Your task to perform on an android device: Search for the best books of all time on Goodreads Image 0: 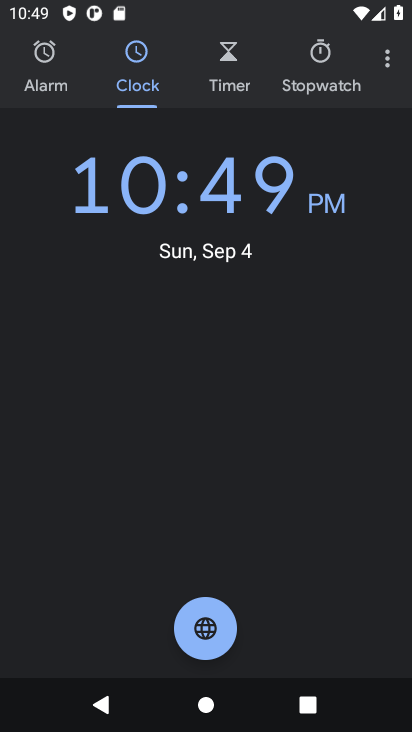
Step 0: press home button
Your task to perform on an android device: Search for the best books of all time on Goodreads Image 1: 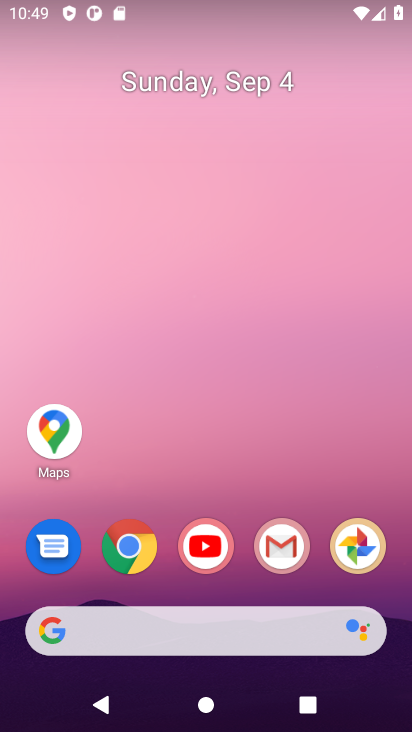
Step 1: click (125, 559)
Your task to perform on an android device: Search for the best books of all time on Goodreads Image 2: 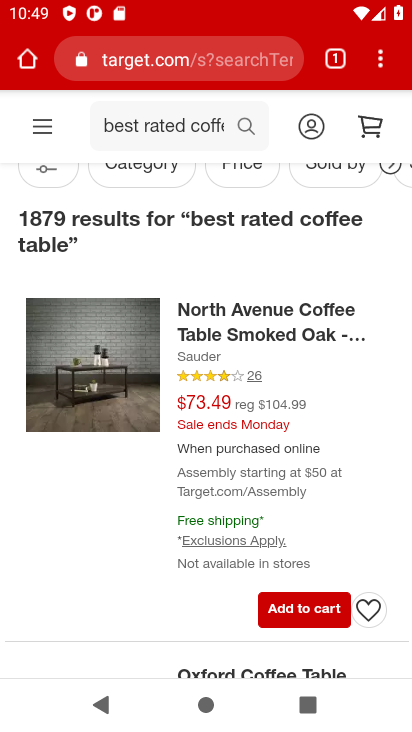
Step 2: click (179, 65)
Your task to perform on an android device: Search for the best books of all time on Goodreads Image 3: 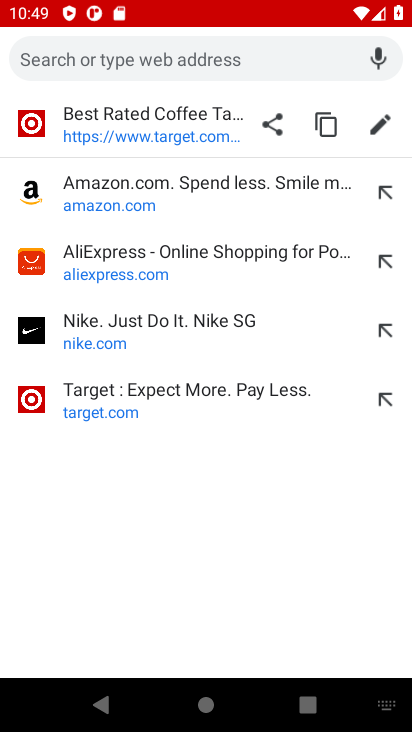
Step 3: type "goodreads"
Your task to perform on an android device: Search for the best books of all time on Goodreads Image 4: 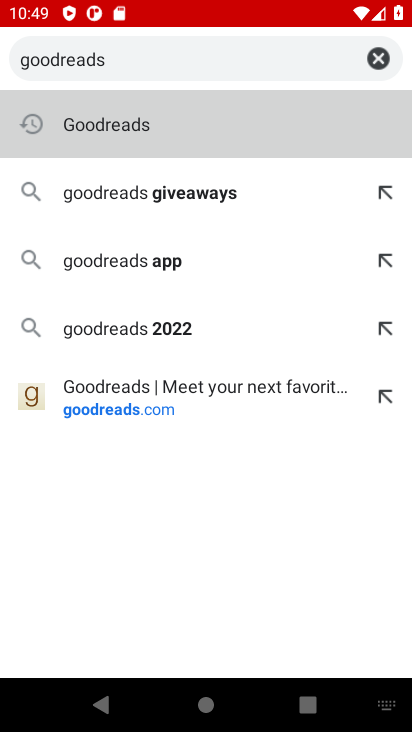
Step 4: click (93, 128)
Your task to perform on an android device: Search for the best books of all time on Goodreads Image 5: 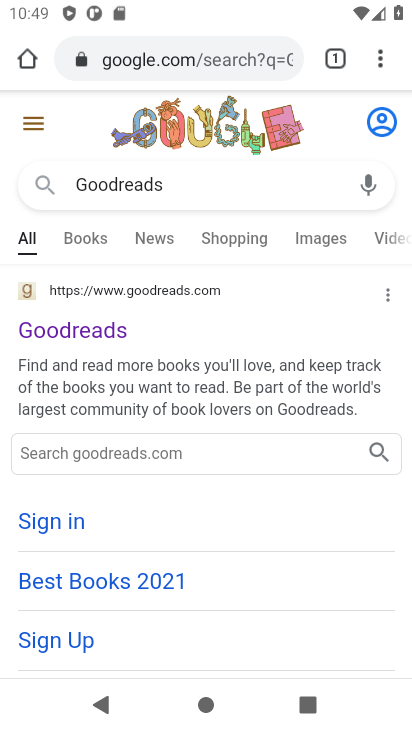
Step 5: click (85, 344)
Your task to perform on an android device: Search for the best books of all time on Goodreads Image 6: 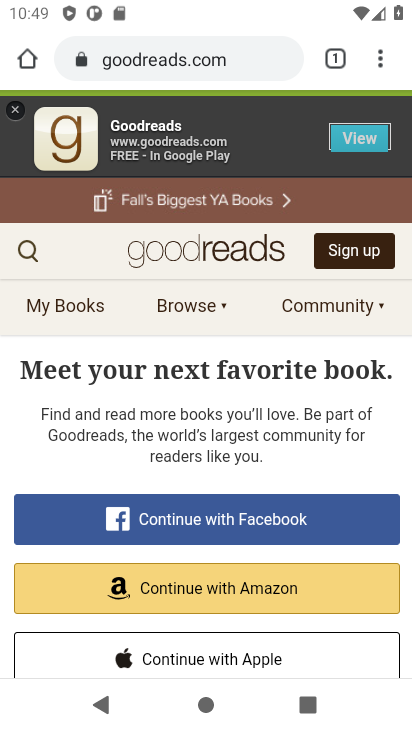
Step 6: click (27, 256)
Your task to perform on an android device: Search for the best books of all time on Goodreads Image 7: 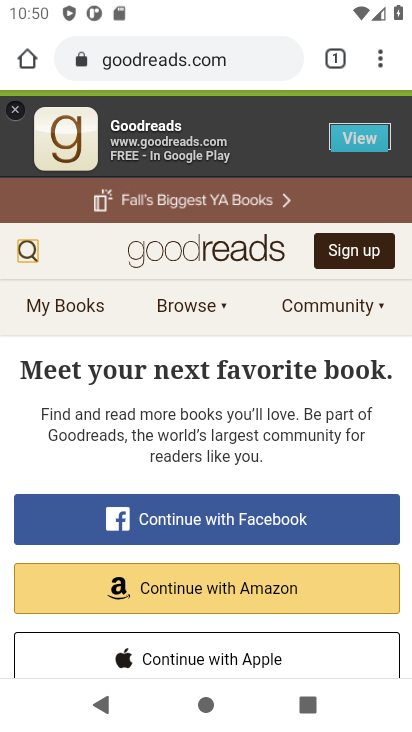
Step 7: click (27, 254)
Your task to perform on an android device: Search for the best books of all time on Goodreads Image 8: 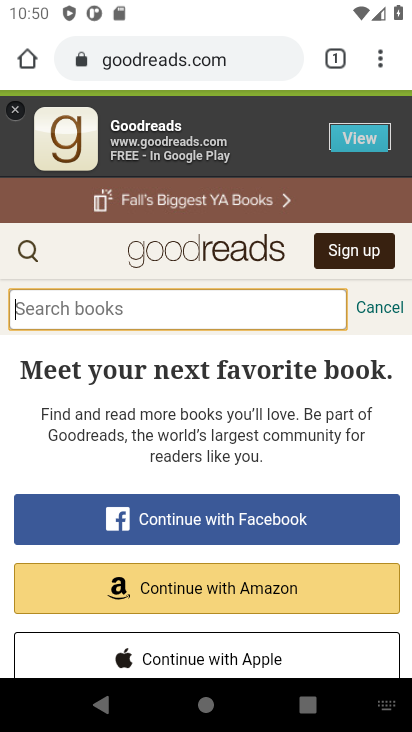
Step 8: type "best books of all time"
Your task to perform on an android device: Search for the best books of all time on Goodreads Image 9: 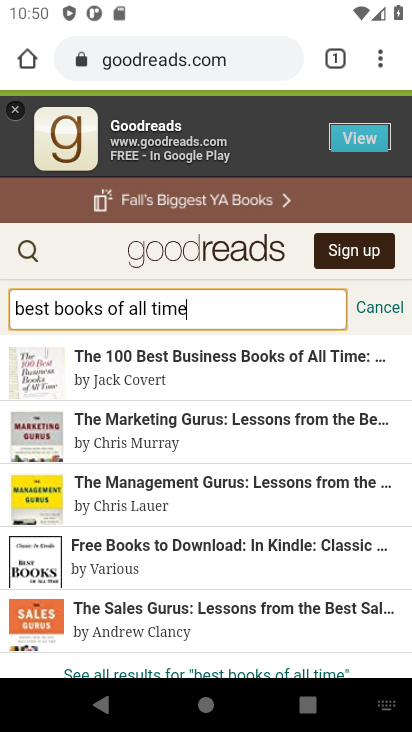
Step 9: drag from (246, 387) to (256, 337)
Your task to perform on an android device: Search for the best books of all time on Goodreads Image 10: 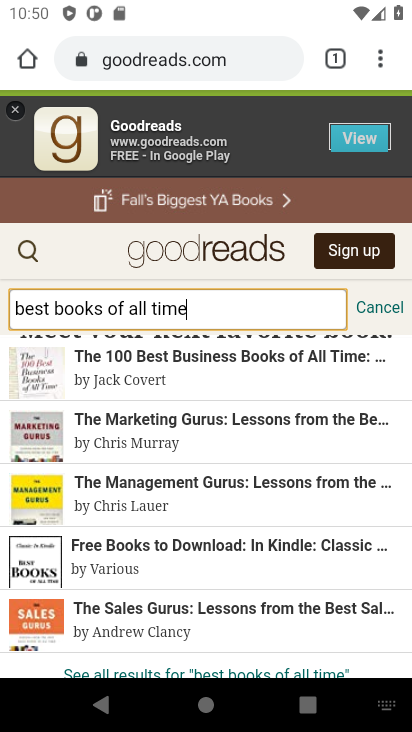
Step 10: click (24, 251)
Your task to perform on an android device: Search for the best books of all time on Goodreads Image 11: 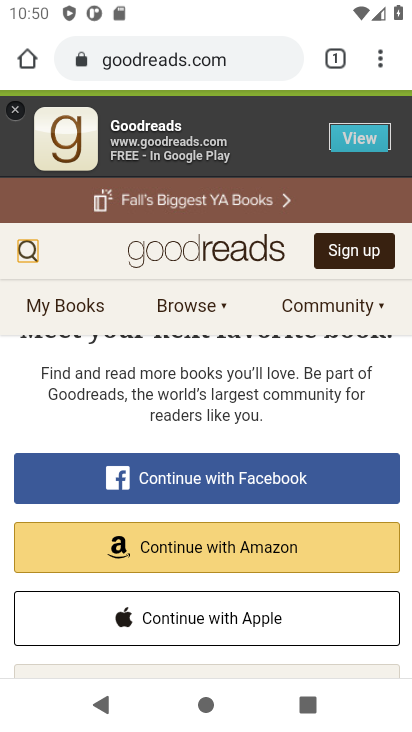
Step 11: drag from (368, 374) to (365, 256)
Your task to perform on an android device: Search for the best books of all time on Goodreads Image 12: 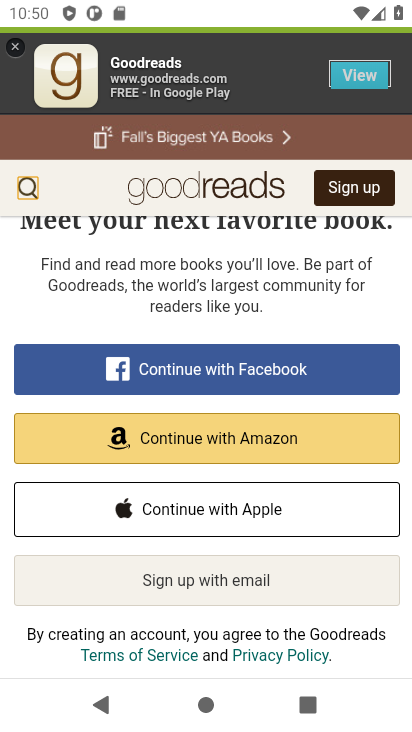
Step 12: click (24, 182)
Your task to perform on an android device: Search for the best books of all time on Goodreads Image 13: 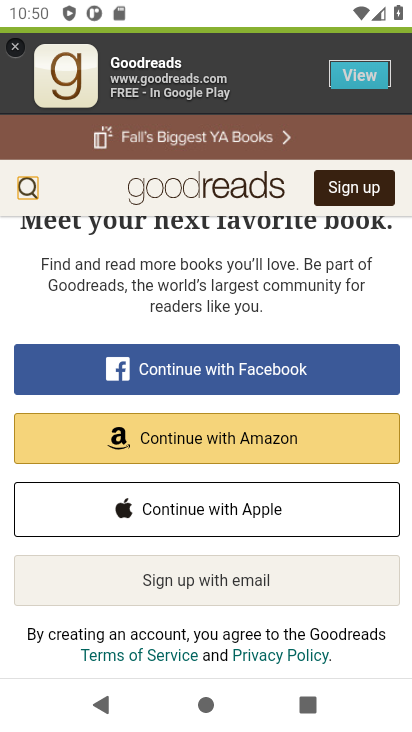
Step 13: click (25, 187)
Your task to perform on an android device: Search for the best books of all time on Goodreads Image 14: 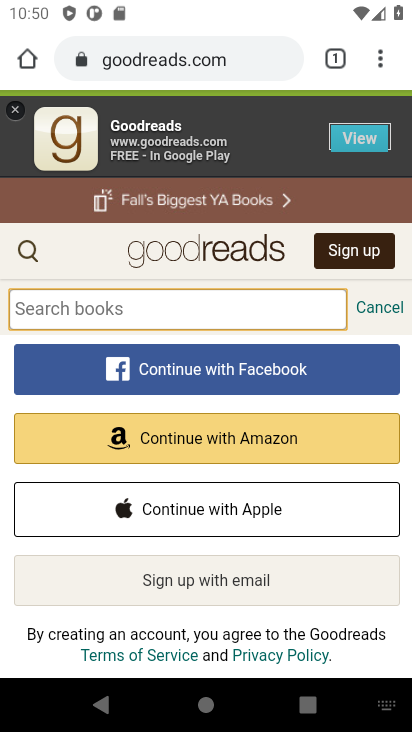
Step 14: type "best books of all time"
Your task to perform on an android device: Search for the best books of all time on Goodreads Image 15: 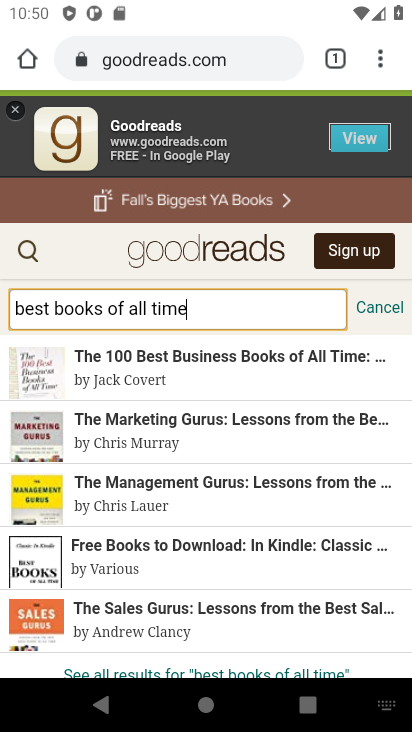
Step 15: task complete